Your task to perform on an android device: What's the weather? Image 0: 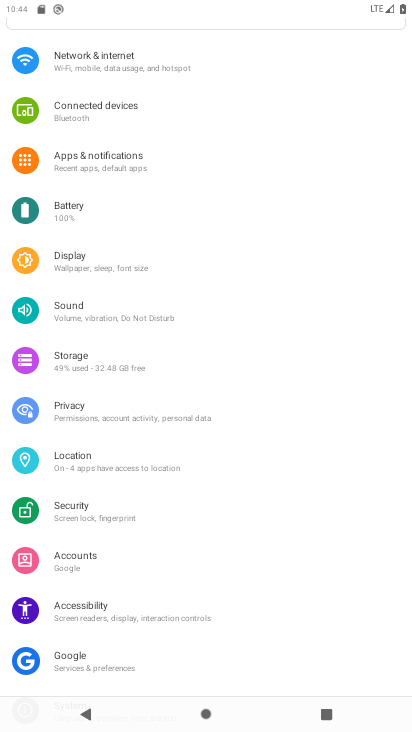
Step 0: press home button
Your task to perform on an android device: What's the weather? Image 1: 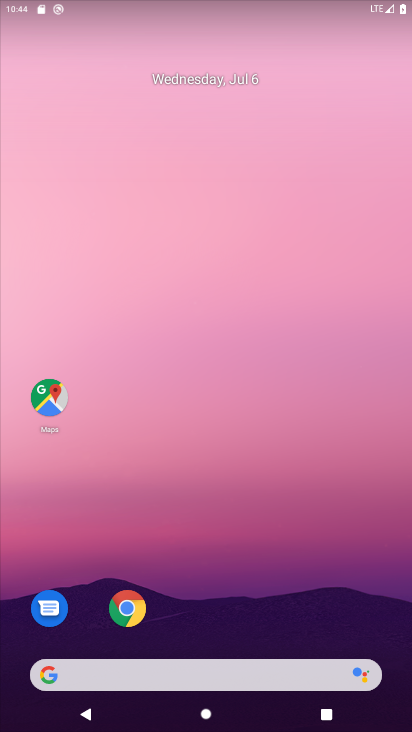
Step 1: click (159, 673)
Your task to perform on an android device: What's the weather? Image 2: 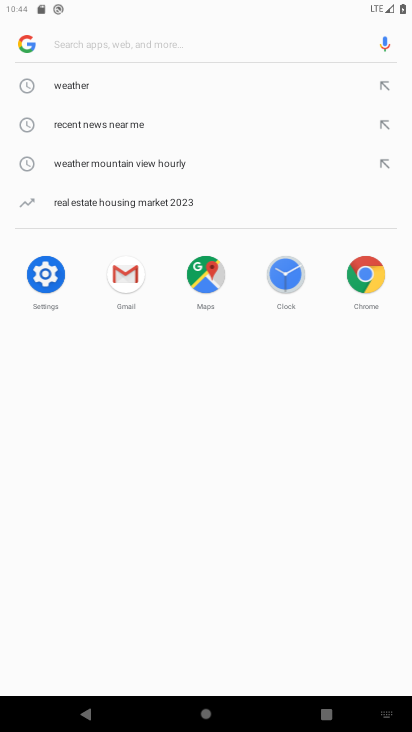
Step 2: click (88, 82)
Your task to perform on an android device: What's the weather? Image 3: 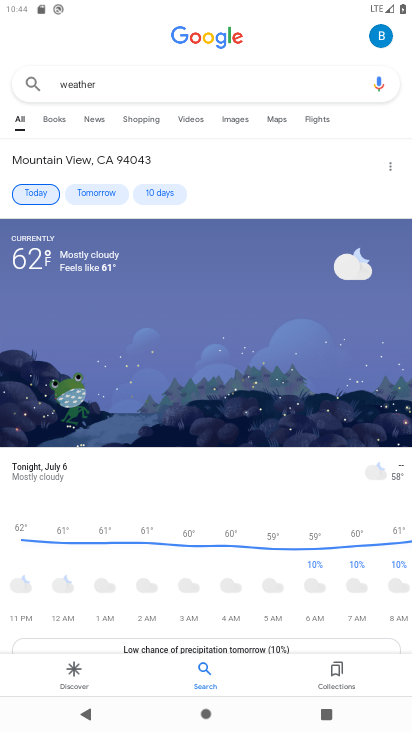
Step 3: task complete